Your task to perform on an android device: change the clock display to analog Image 0: 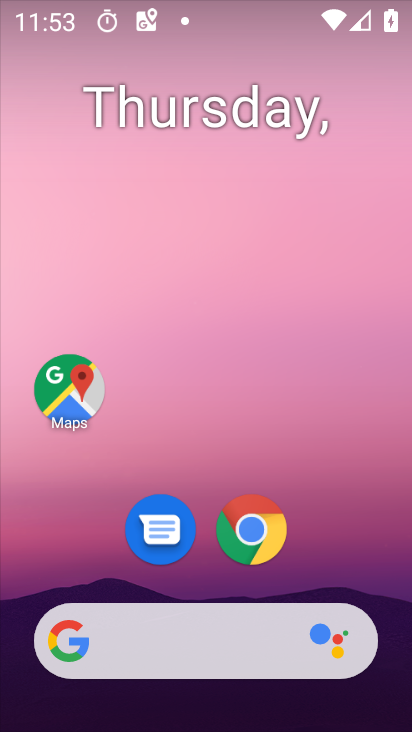
Step 0: drag from (235, 553) to (345, 51)
Your task to perform on an android device: change the clock display to analog Image 1: 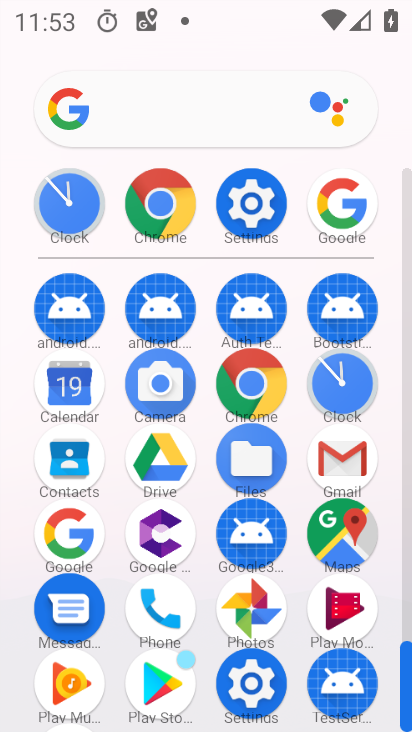
Step 1: click (340, 405)
Your task to perform on an android device: change the clock display to analog Image 2: 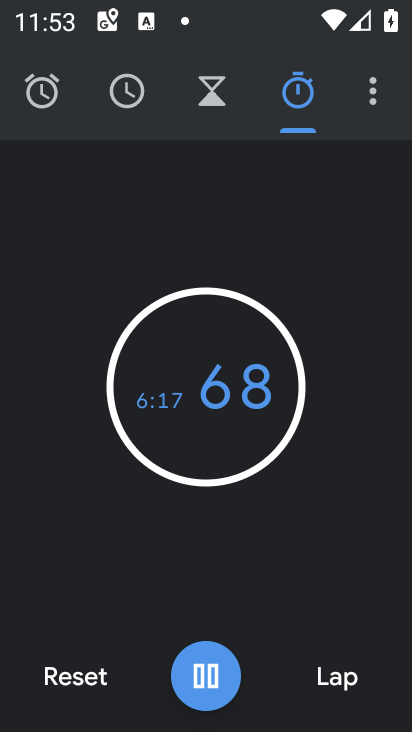
Step 2: click (370, 112)
Your task to perform on an android device: change the clock display to analog Image 3: 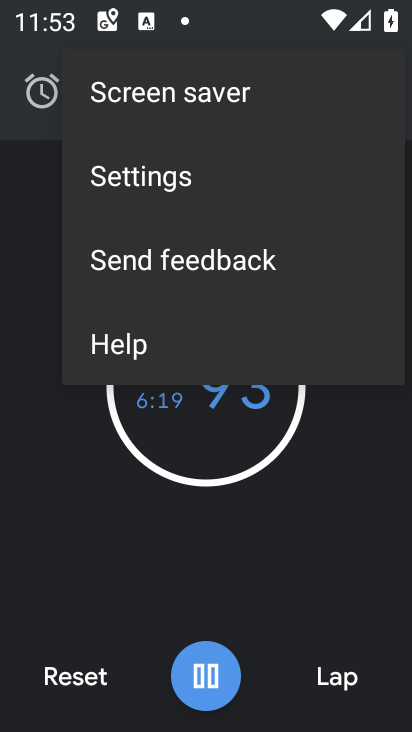
Step 3: click (193, 198)
Your task to perform on an android device: change the clock display to analog Image 4: 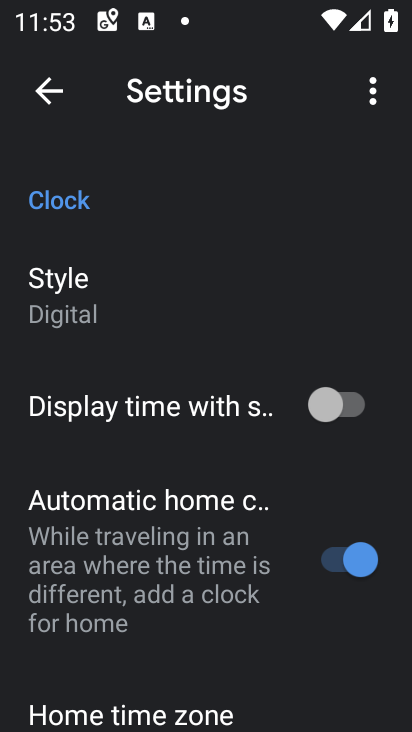
Step 4: click (167, 316)
Your task to perform on an android device: change the clock display to analog Image 5: 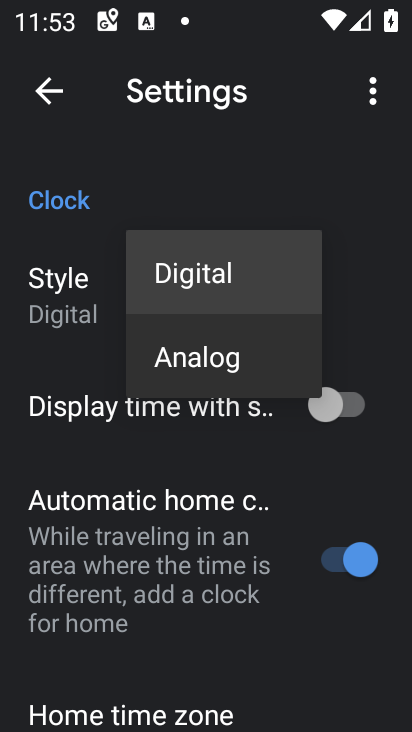
Step 5: click (181, 363)
Your task to perform on an android device: change the clock display to analog Image 6: 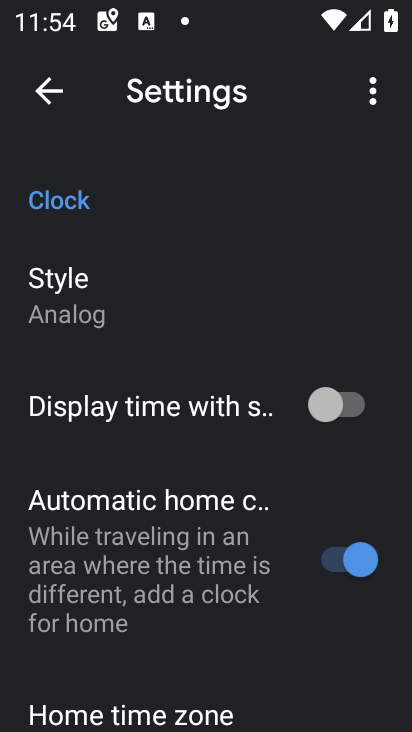
Step 6: task complete